Your task to perform on an android device: open app "PlayWell" (install if not already installed) Image 0: 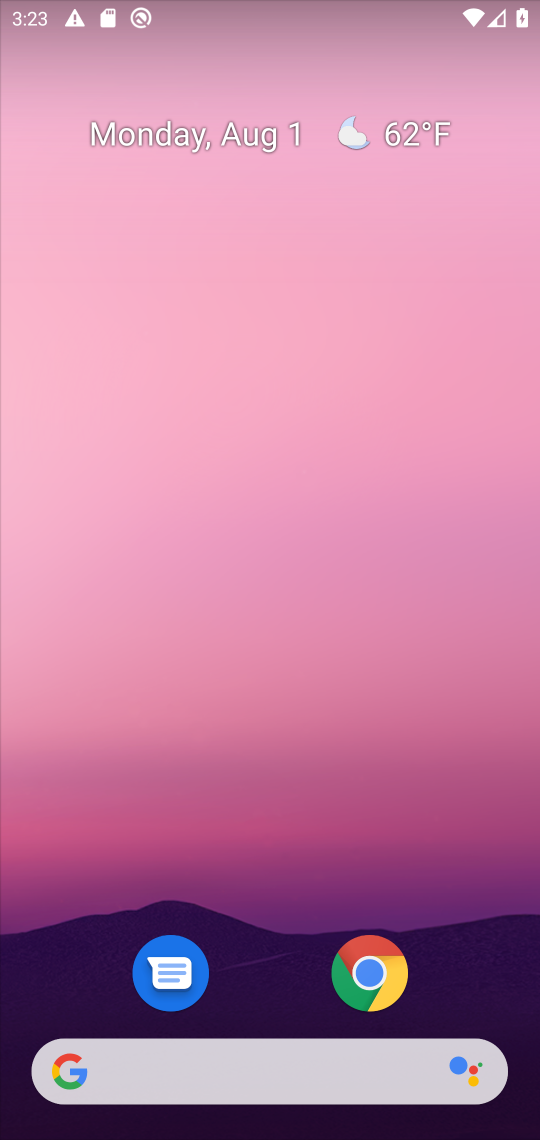
Step 0: drag from (160, 201) to (240, 363)
Your task to perform on an android device: open app "PlayWell" (install if not already installed) Image 1: 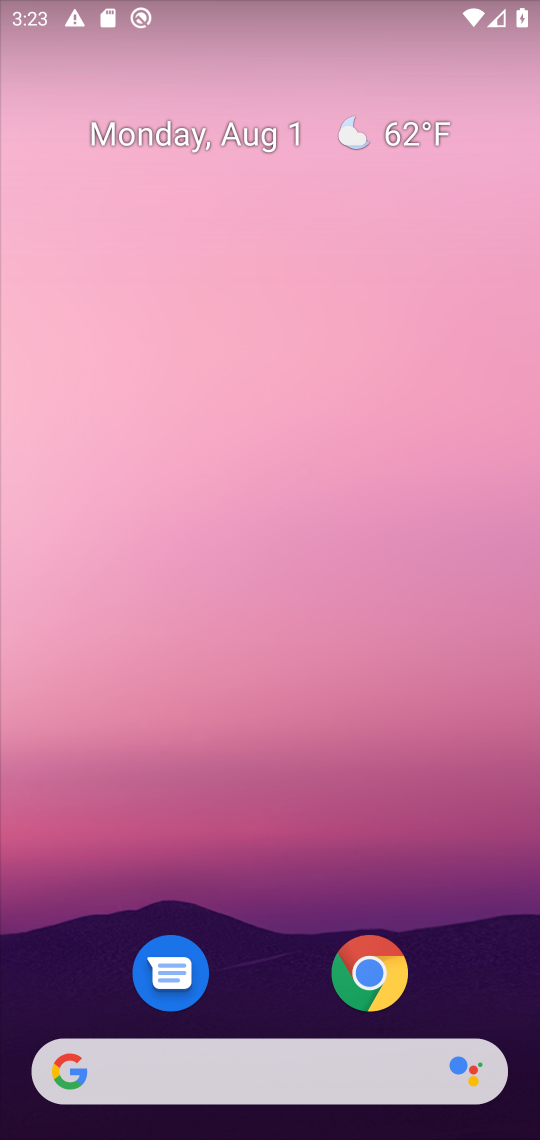
Step 1: click (233, 7)
Your task to perform on an android device: open app "PlayWell" (install if not already installed) Image 2: 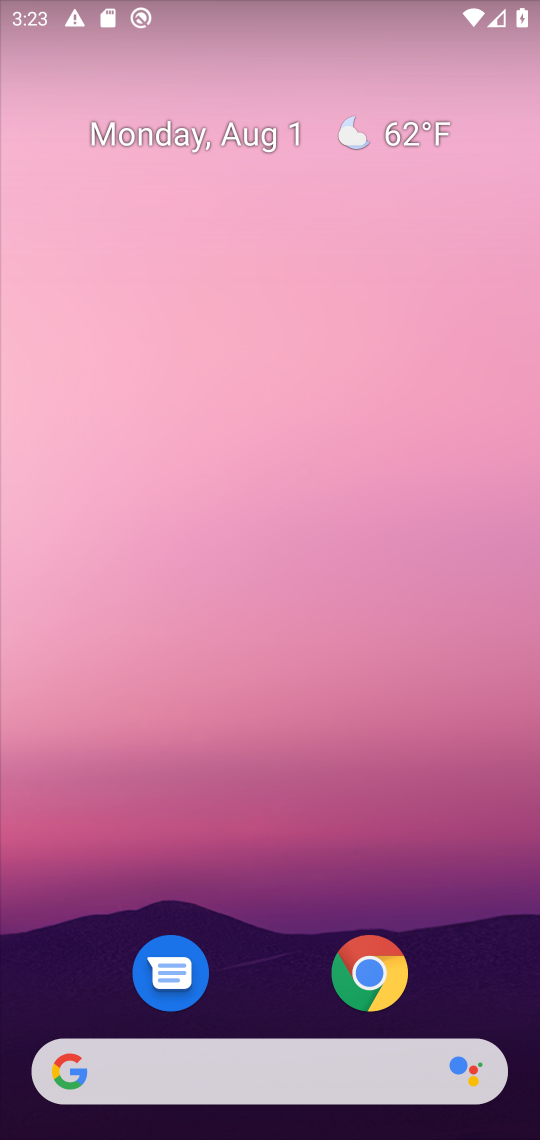
Step 2: drag from (232, 649) to (182, 76)
Your task to perform on an android device: open app "PlayWell" (install if not already installed) Image 3: 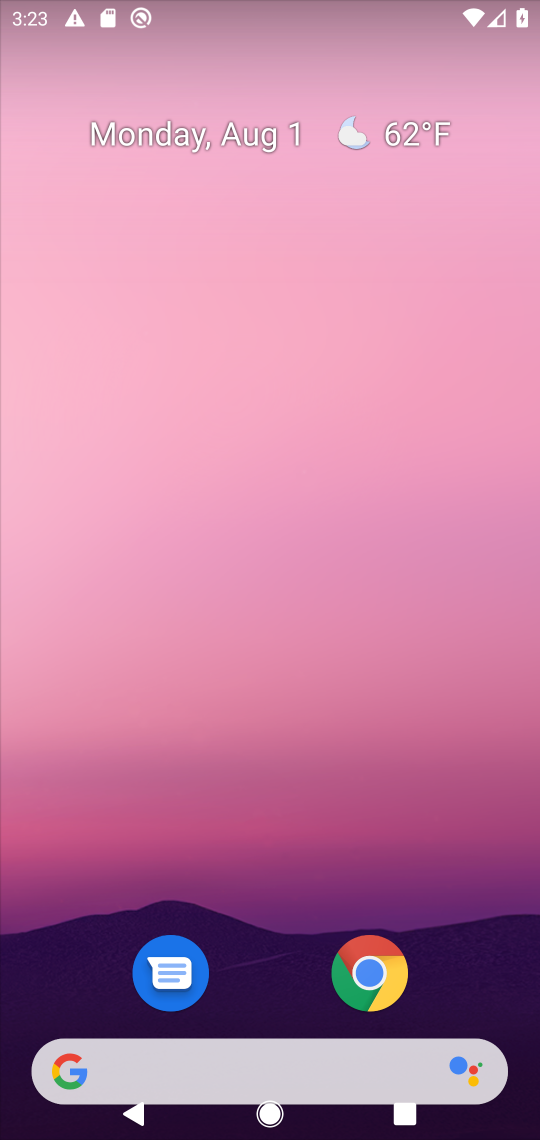
Step 3: drag from (209, 747) to (227, 116)
Your task to perform on an android device: open app "PlayWell" (install if not already installed) Image 4: 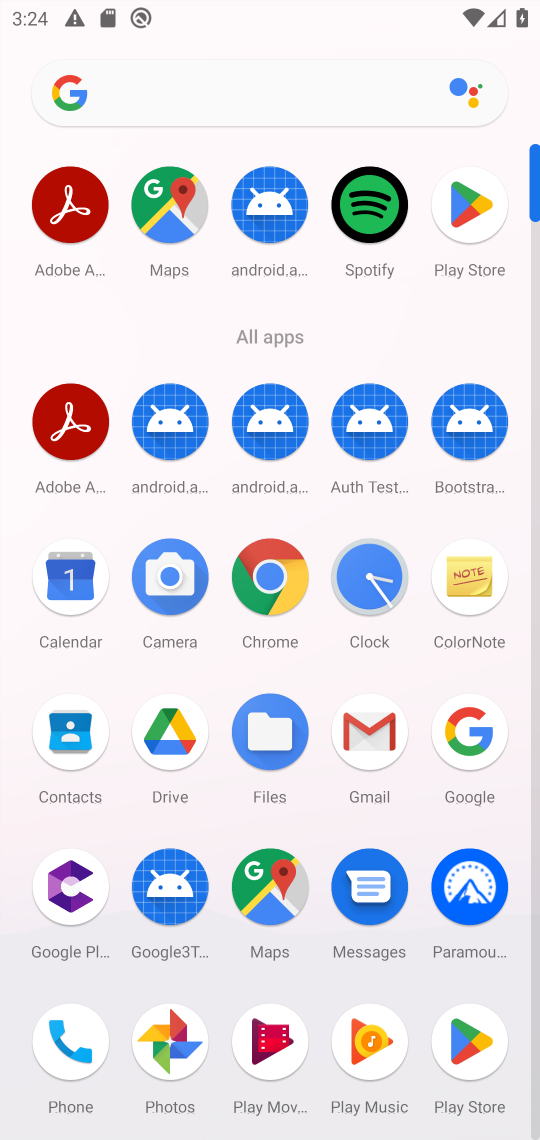
Step 4: click (459, 205)
Your task to perform on an android device: open app "PlayWell" (install if not already installed) Image 5: 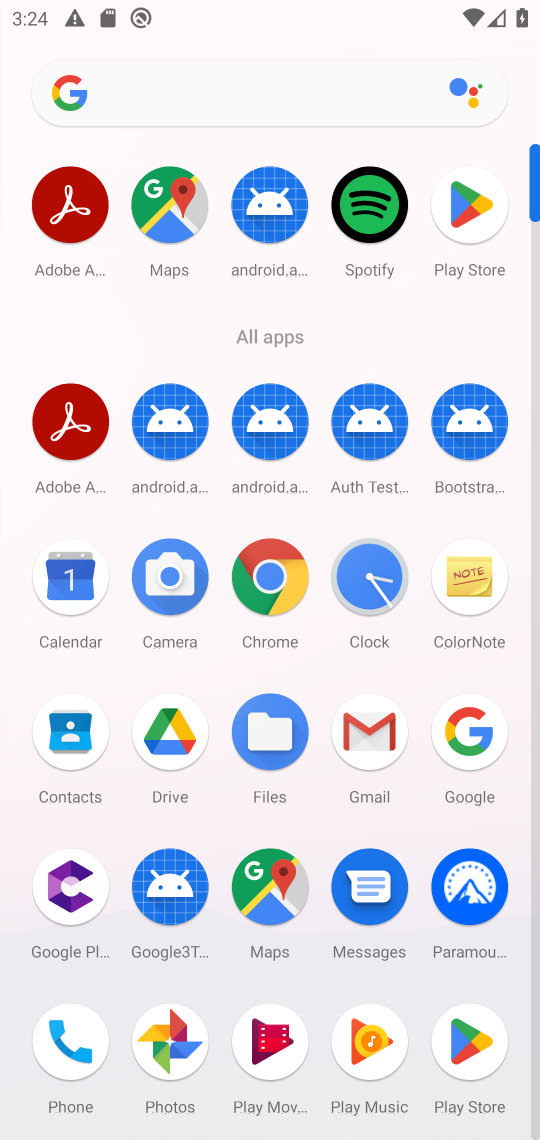
Step 5: click (459, 204)
Your task to perform on an android device: open app "PlayWell" (install if not already installed) Image 6: 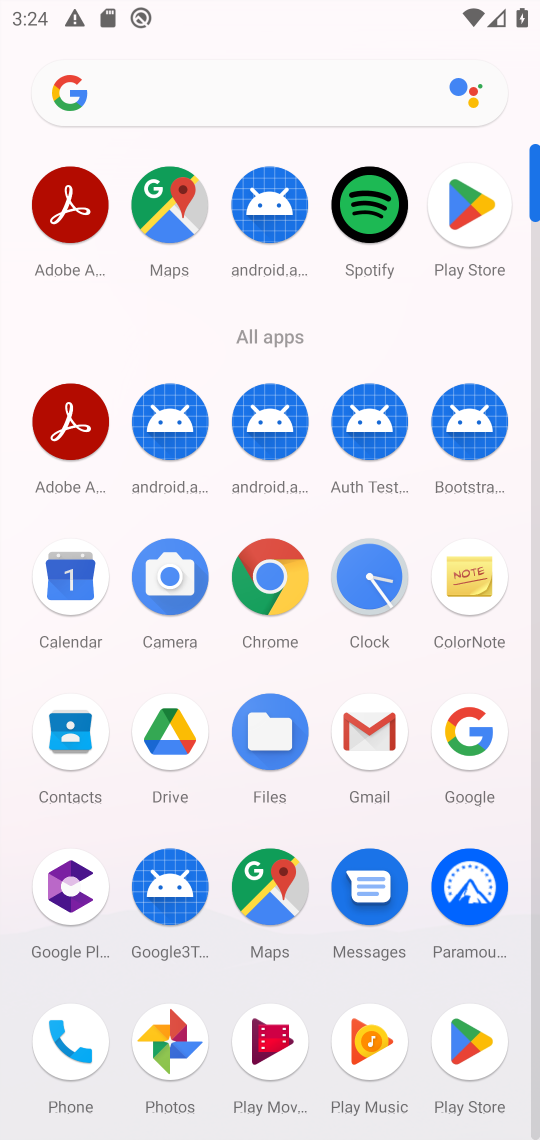
Step 6: click (459, 207)
Your task to perform on an android device: open app "PlayWell" (install if not already installed) Image 7: 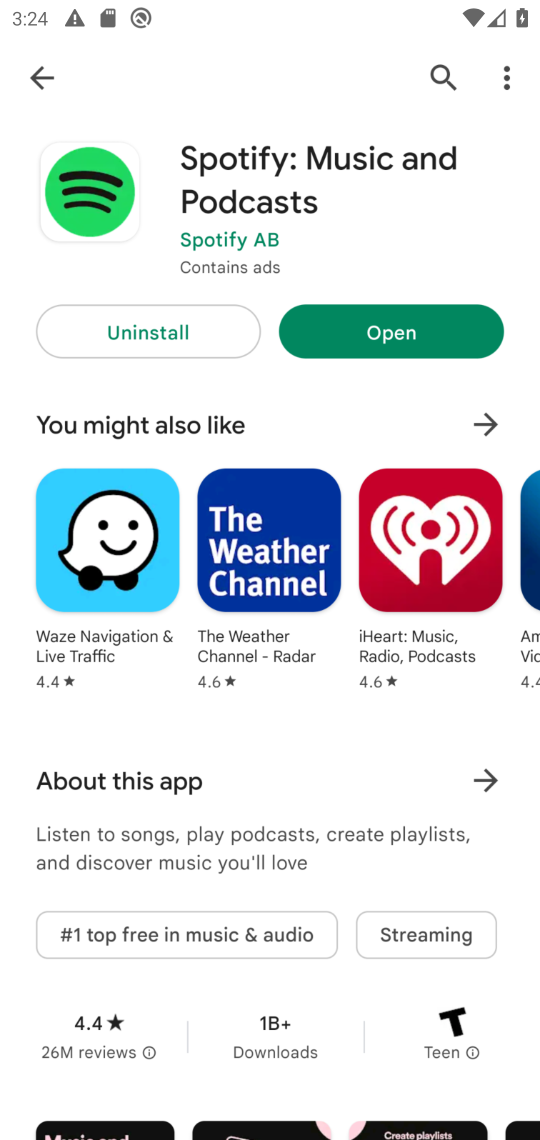
Step 7: click (459, 207)
Your task to perform on an android device: open app "PlayWell" (install if not already installed) Image 8: 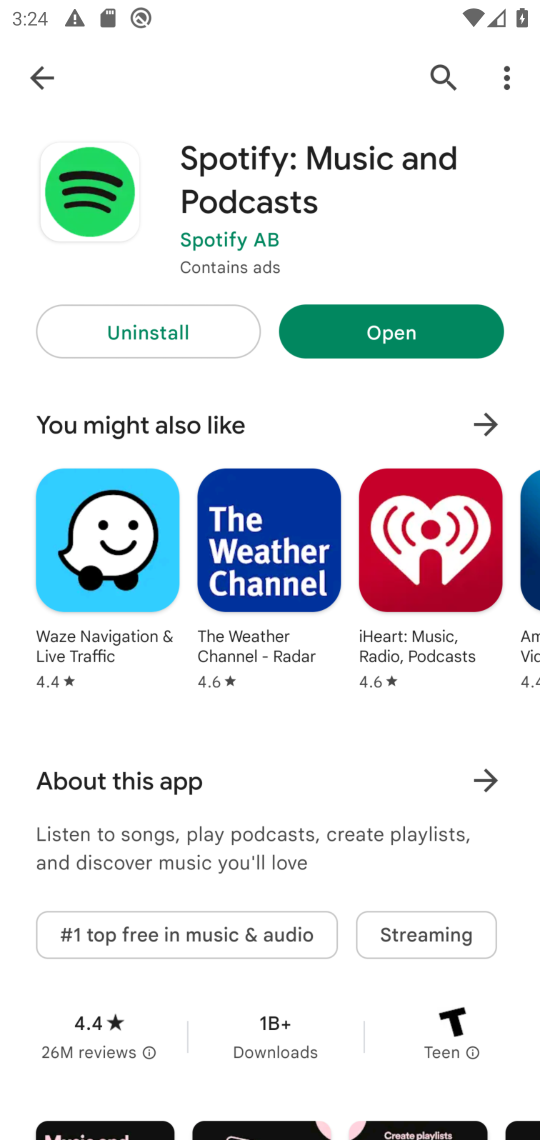
Step 8: click (459, 207)
Your task to perform on an android device: open app "PlayWell" (install if not already installed) Image 9: 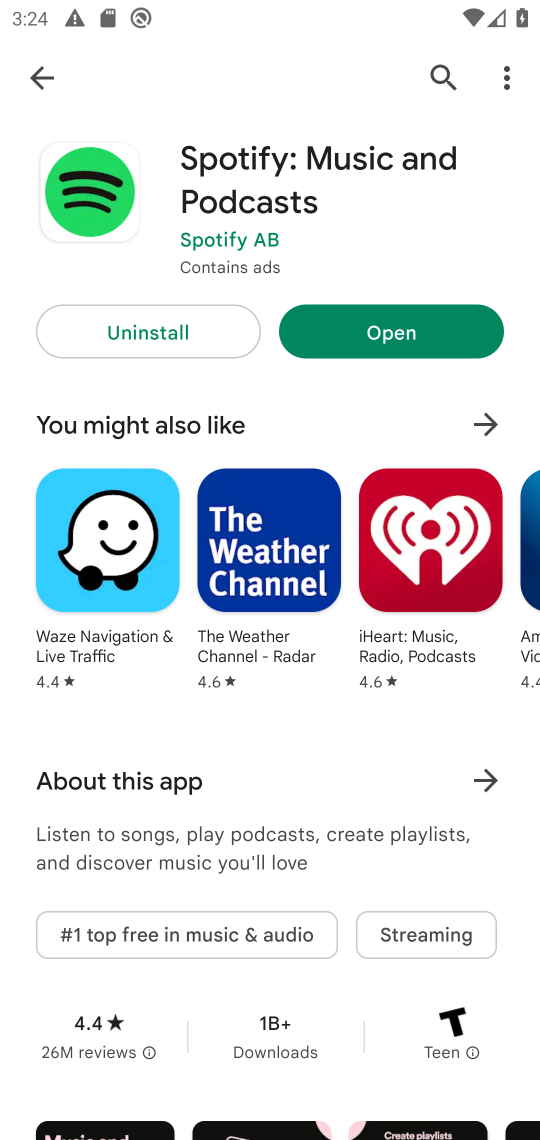
Step 9: click (459, 207)
Your task to perform on an android device: open app "PlayWell" (install if not already installed) Image 10: 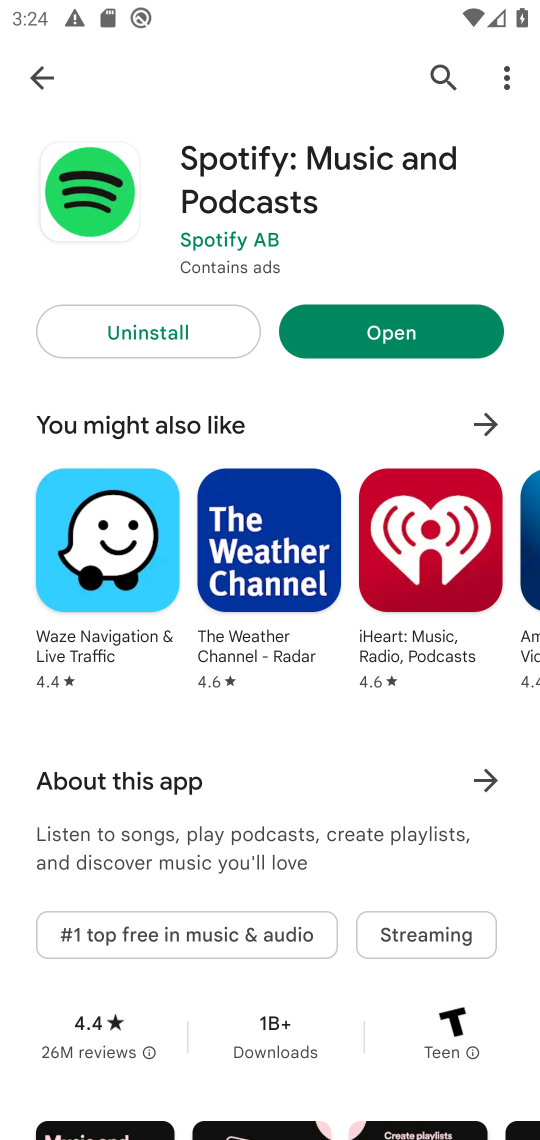
Step 10: click (36, 58)
Your task to perform on an android device: open app "PlayWell" (install if not already installed) Image 11: 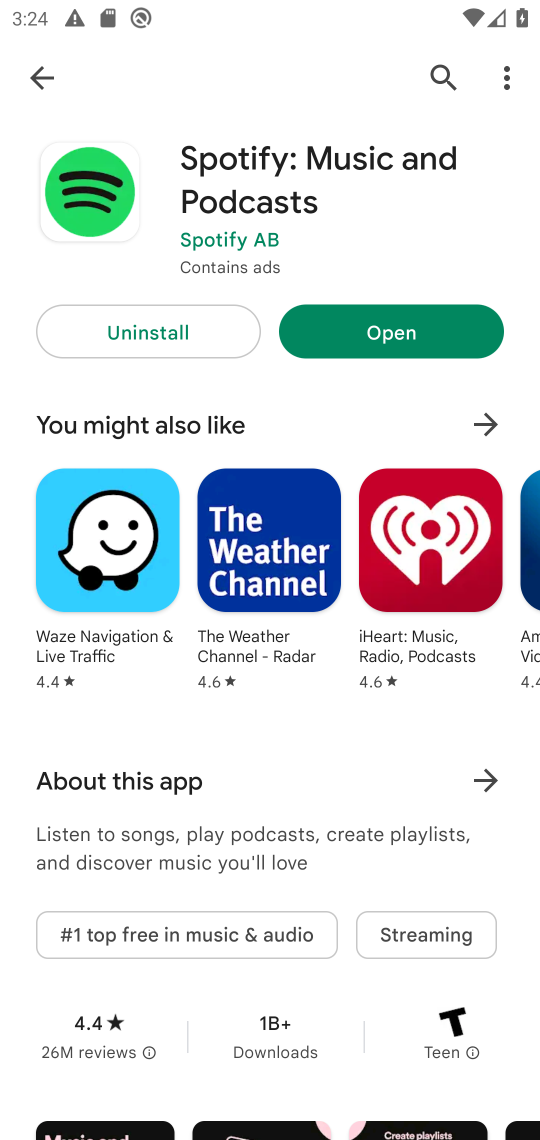
Step 11: click (36, 60)
Your task to perform on an android device: open app "PlayWell" (install if not already installed) Image 12: 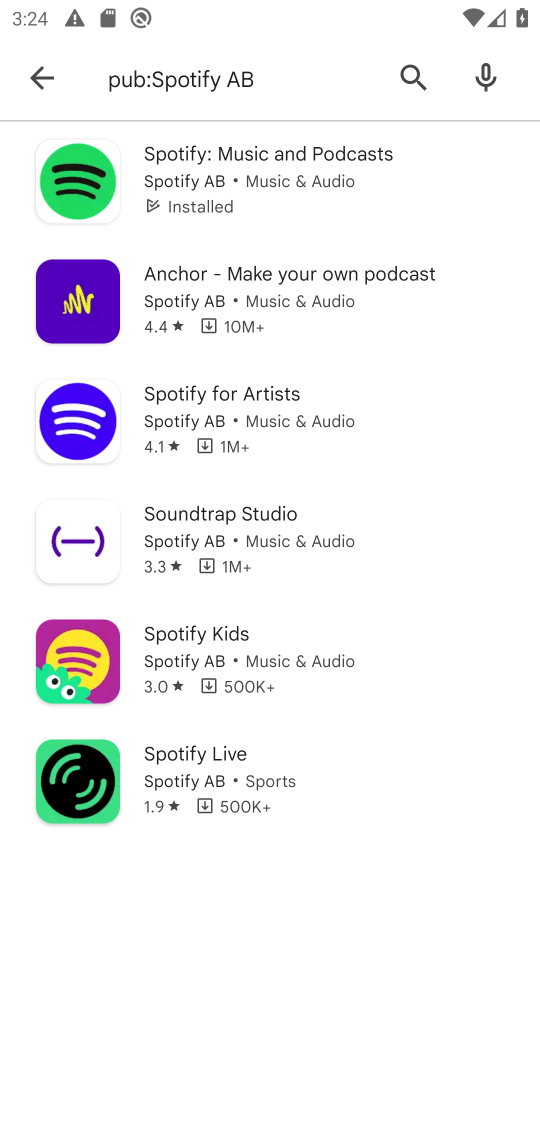
Step 12: click (38, 63)
Your task to perform on an android device: open app "PlayWell" (install if not already installed) Image 13: 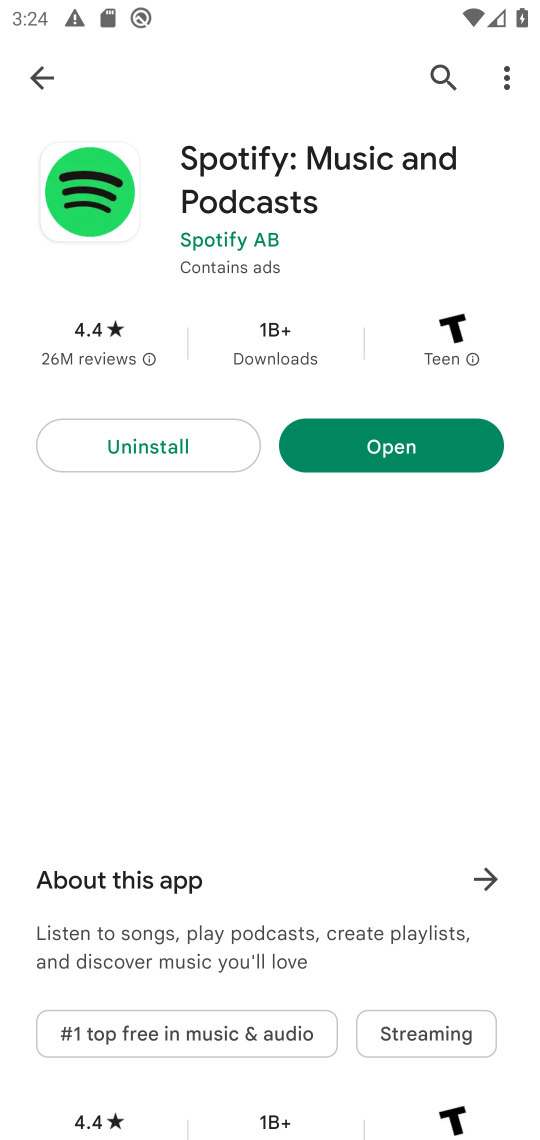
Step 13: click (42, 61)
Your task to perform on an android device: open app "PlayWell" (install if not already installed) Image 14: 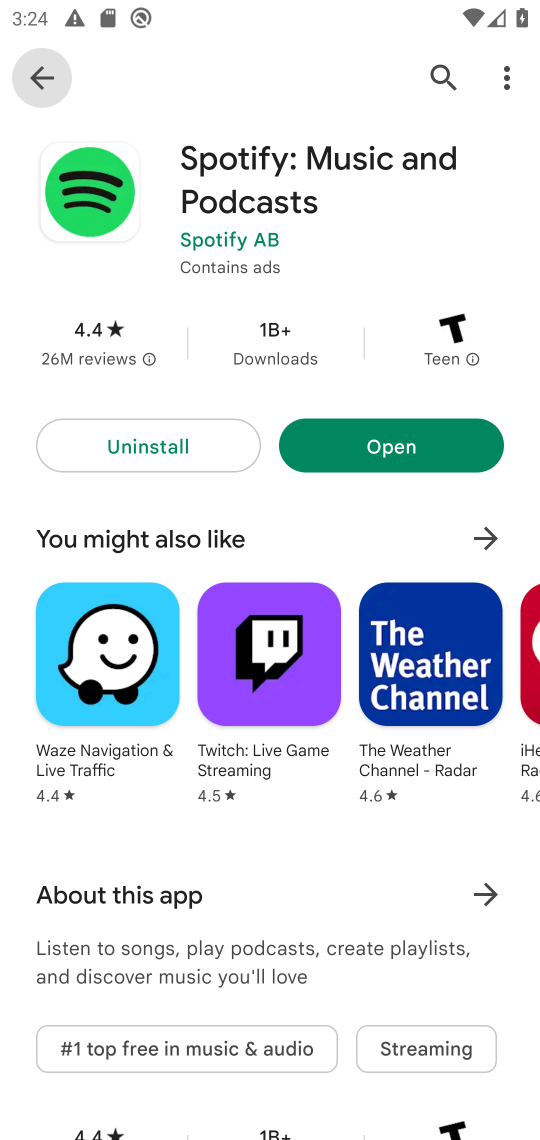
Step 14: click (42, 61)
Your task to perform on an android device: open app "PlayWell" (install if not already installed) Image 15: 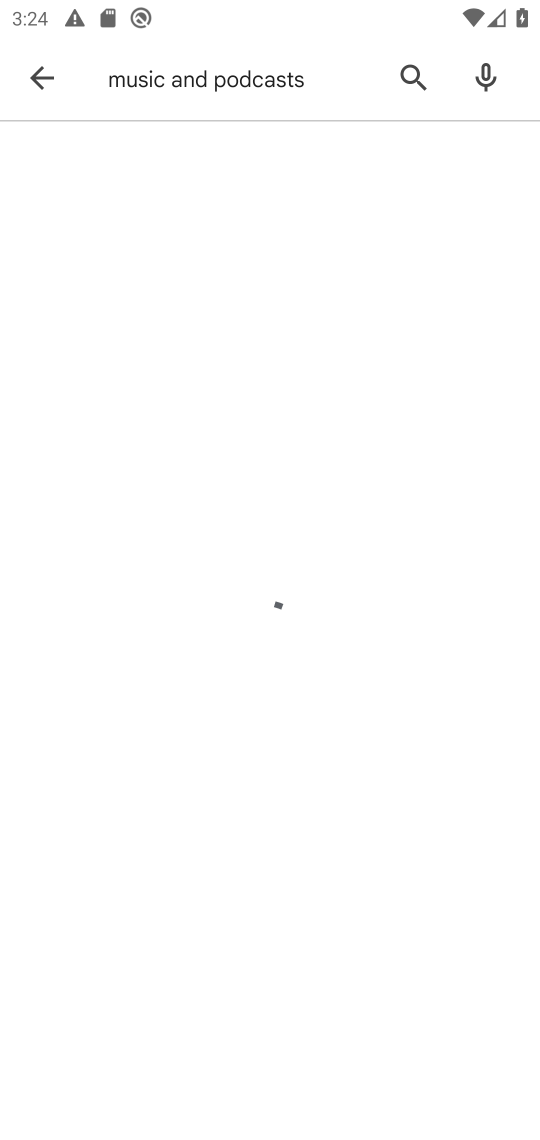
Step 15: click (42, 61)
Your task to perform on an android device: open app "PlayWell" (install if not already installed) Image 16: 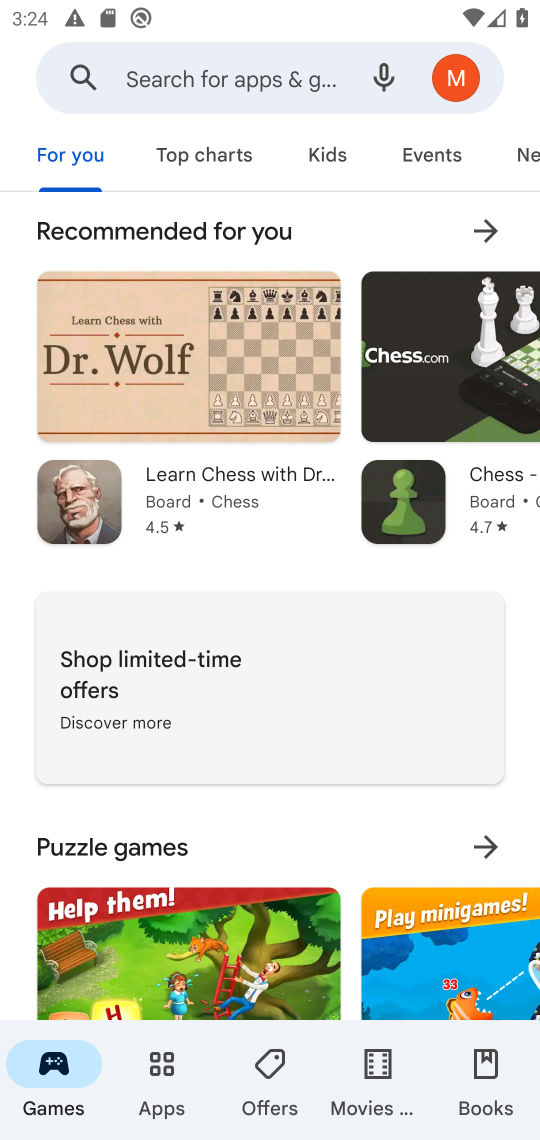
Step 16: click (149, 75)
Your task to perform on an android device: open app "PlayWell" (install if not already installed) Image 17: 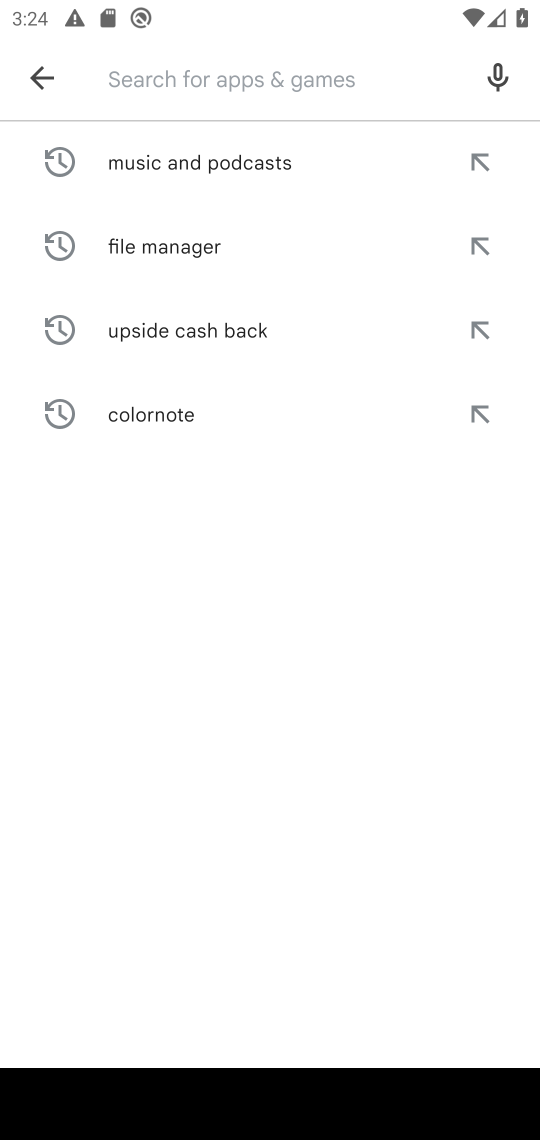
Step 17: type "PlayWell"
Your task to perform on an android device: open app "PlayWell" (install if not already installed) Image 18: 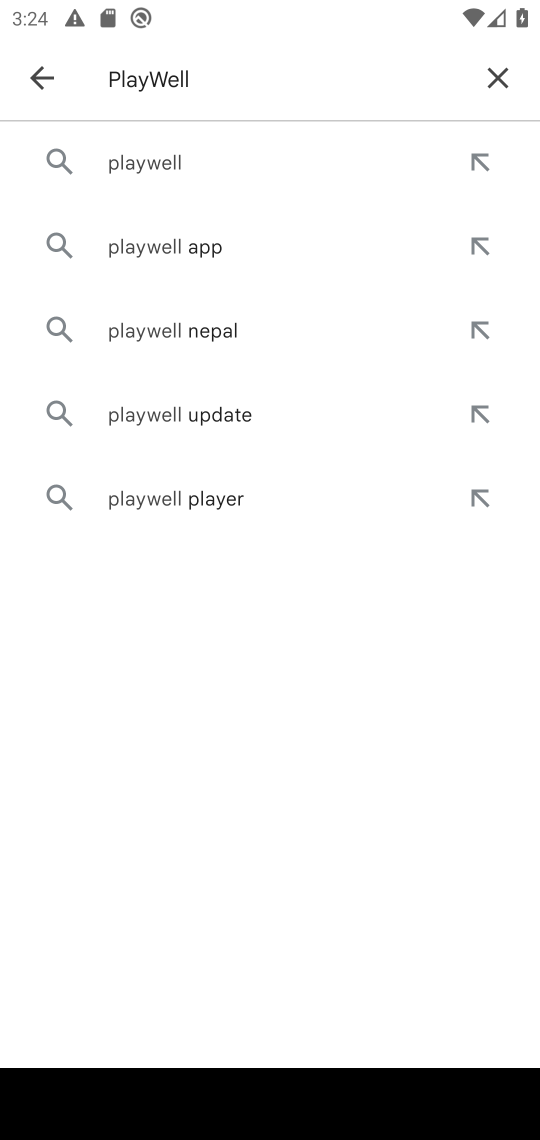
Step 18: click (144, 170)
Your task to perform on an android device: open app "PlayWell" (install if not already installed) Image 19: 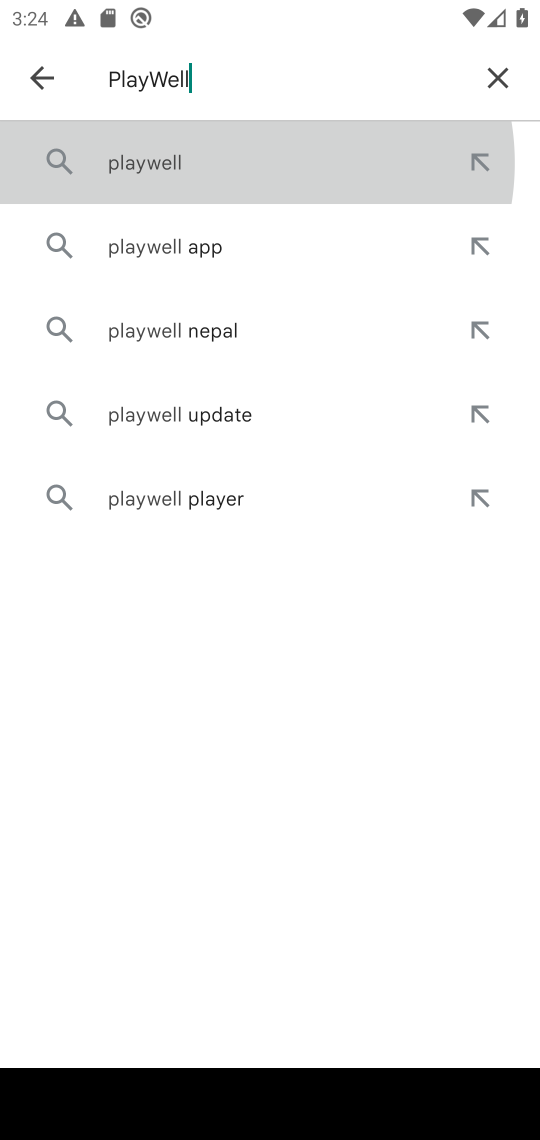
Step 19: click (138, 201)
Your task to perform on an android device: open app "PlayWell" (install if not already installed) Image 20: 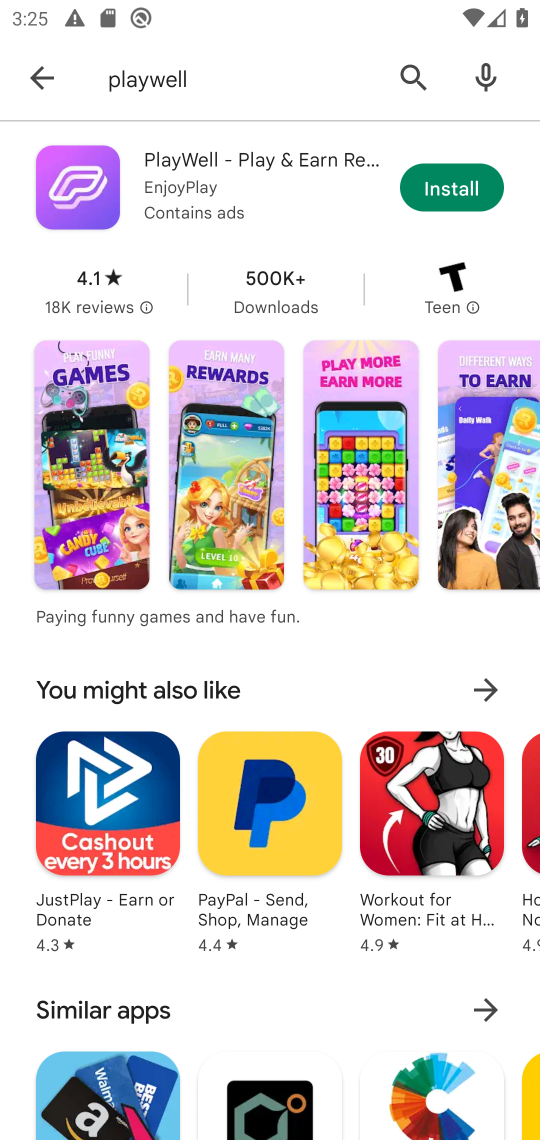
Step 20: click (444, 192)
Your task to perform on an android device: open app "PlayWell" (install if not already installed) Image 21: 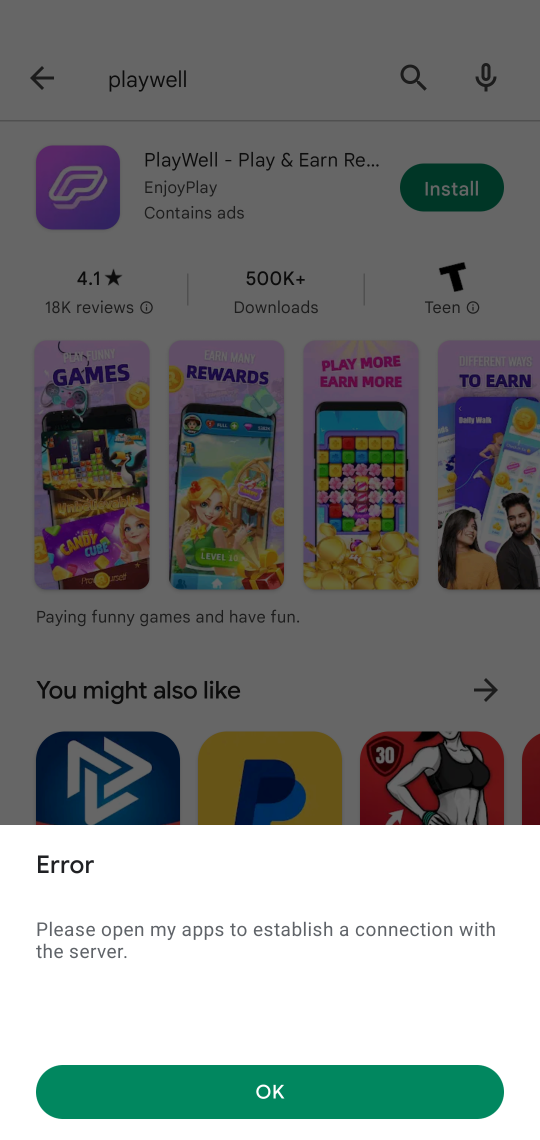
Step 21: click (315, 1104)
Your task to perform on an android device: open app "PlayWell" (install if not already installed) Image 22: 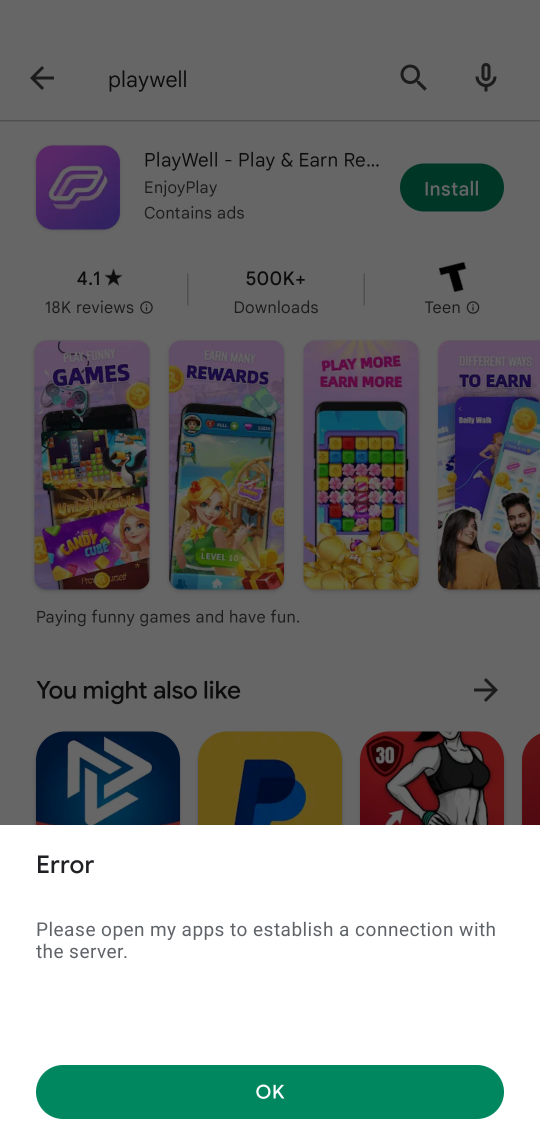
Step 22: click (315, 1101)
Your task to perform on an android device: open app "PlayWell" (install if not already installed) Image 23: 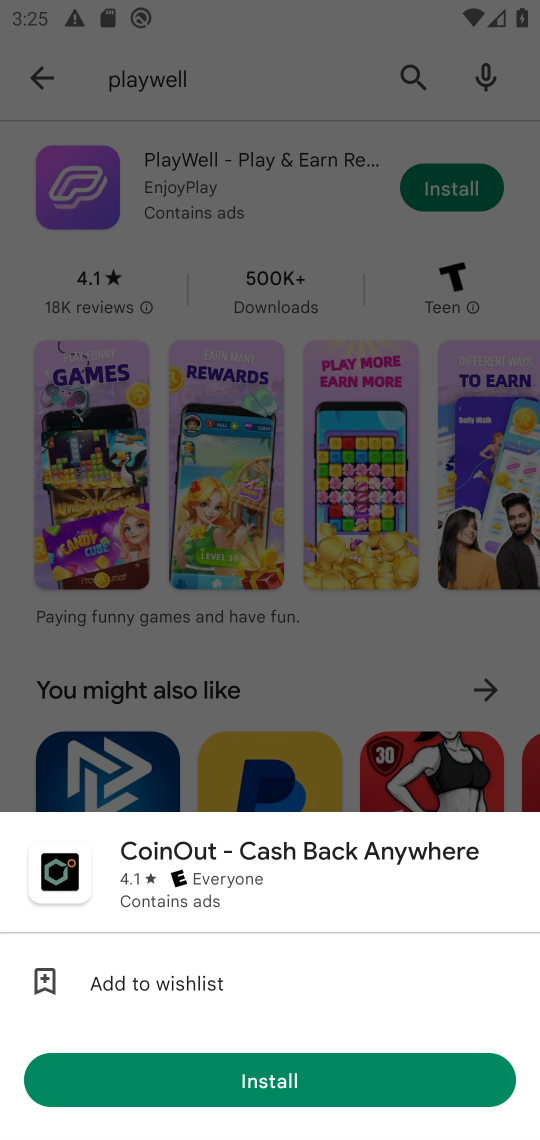
Step 23: click (278, 1087)
Your task to perform on an android device: open app "PlayWell" (install if not already installed) Image 24: 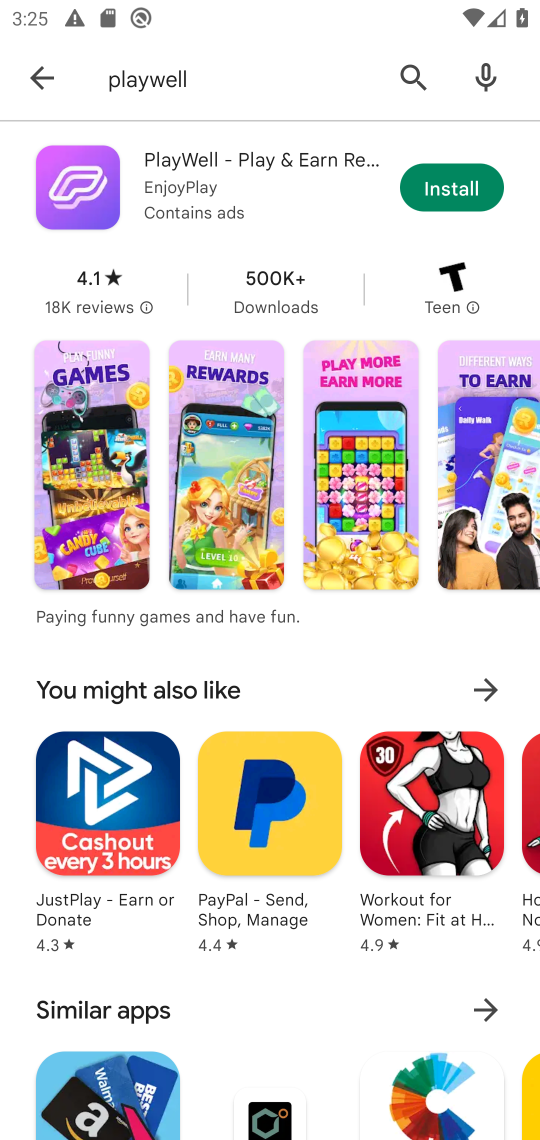
Step 24: click (444, 183)
Your task to perform on an android device: open app "PlayWell" (install if not already installed) Image 25: 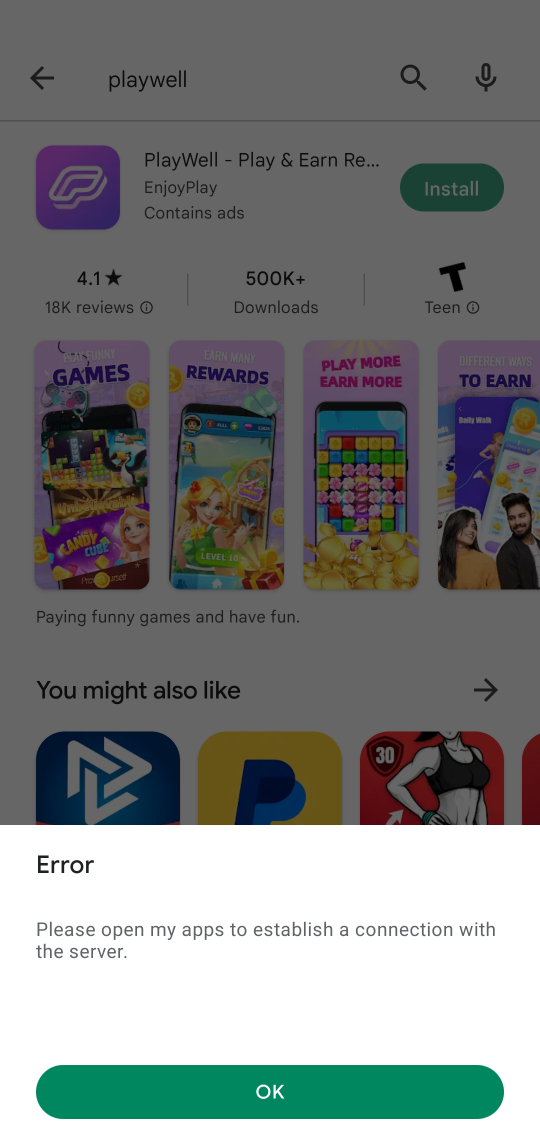
Step 25: click (444, 188)
Your task to perform on an android device: open app "PlayWell" (install if not already installed) Image 26: 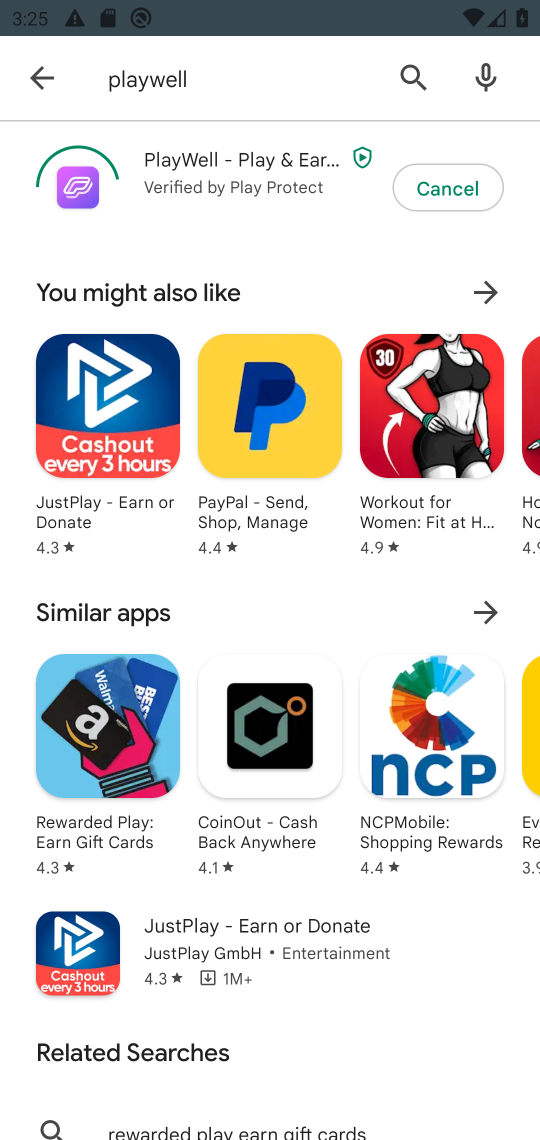
Step 26: click (256, 1078)
Your task to perform on an android device: open app "PlayWell" (install if not already installed) Image 27: 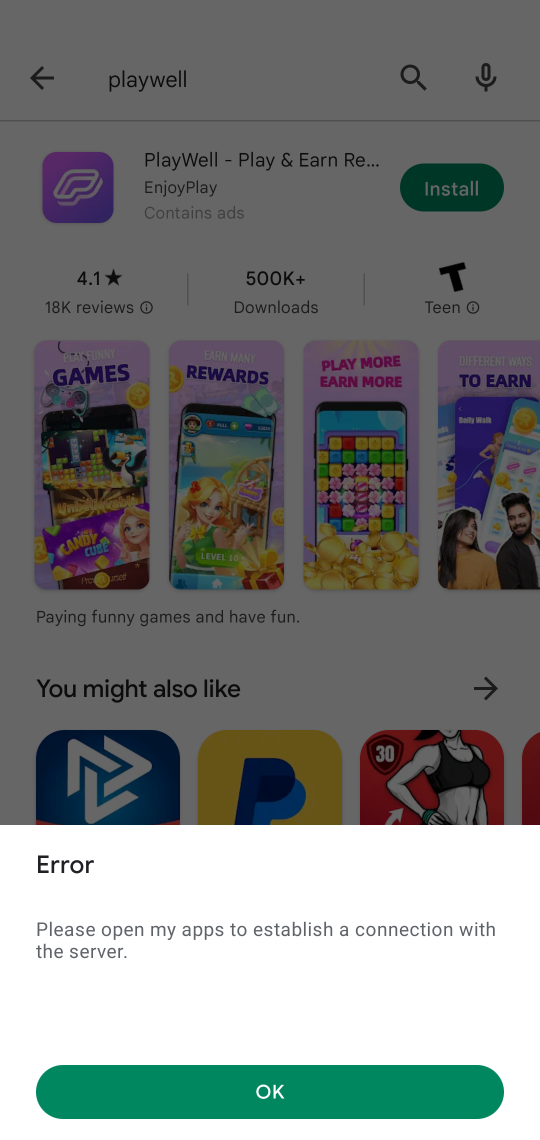
Step 27: click (274, 1075)
Your task to perform on an android device: open app "PlayWell" (install if not already installed) Image 28: 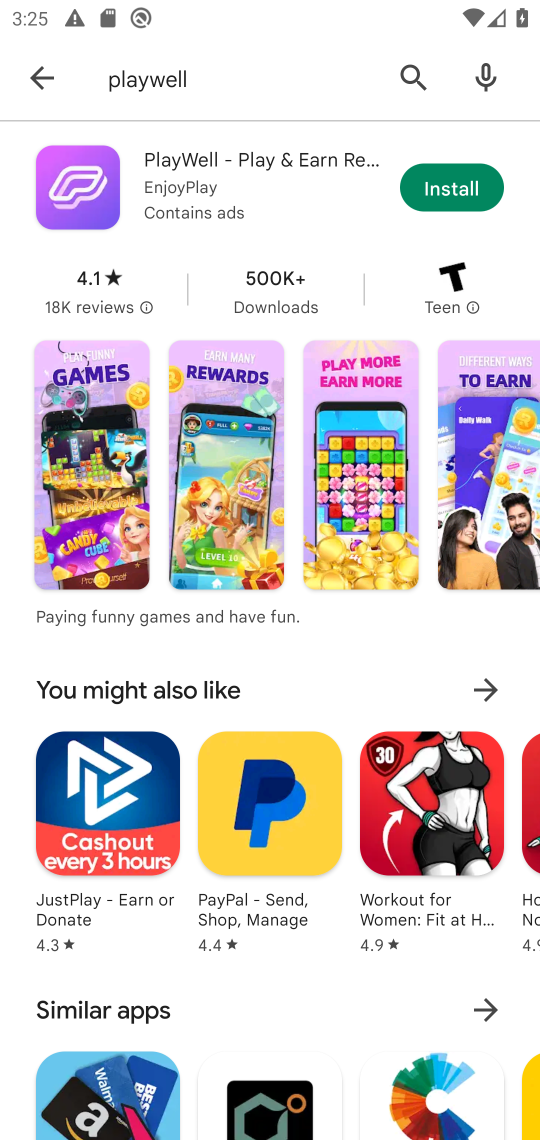
Step 28: click (436, 187)
Your task to perform on an android device: open app "PlayWell" (install if not already installed) Image 29: 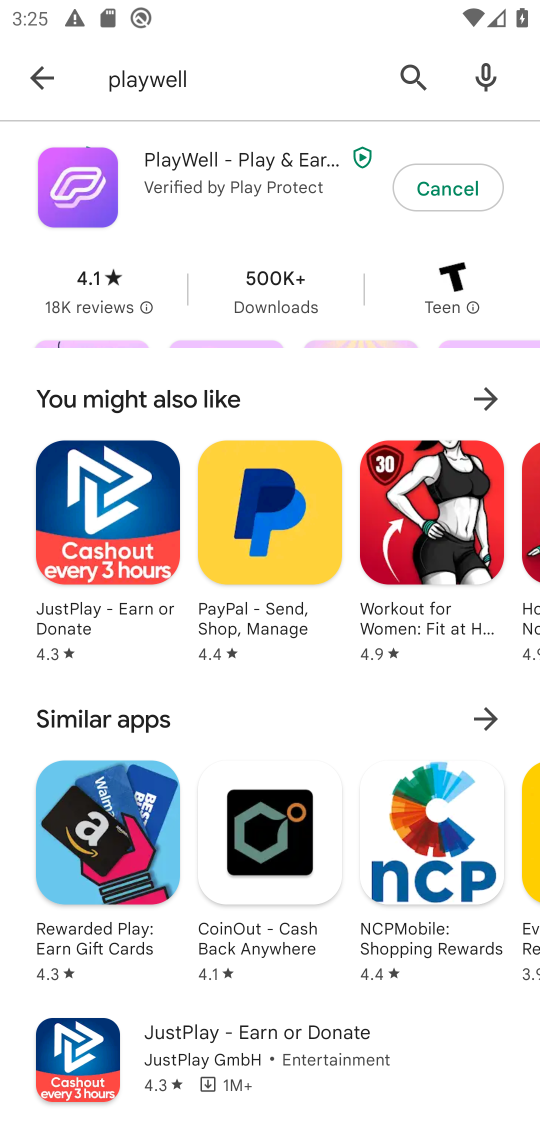
Step 29: click (425, 192)
Your task to perform on an android device: open app "PlayWell" (install if not already installed) Image 30: 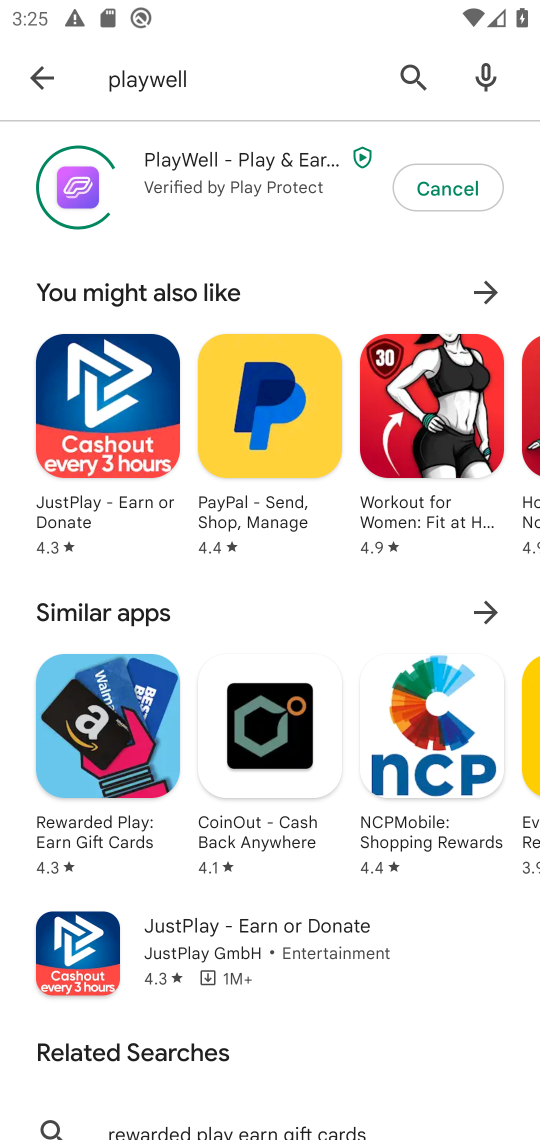
Step 30: click (421, 202)
Your task to perform on an android device: open app "PlayWell" (install if not already installed) Image 31: 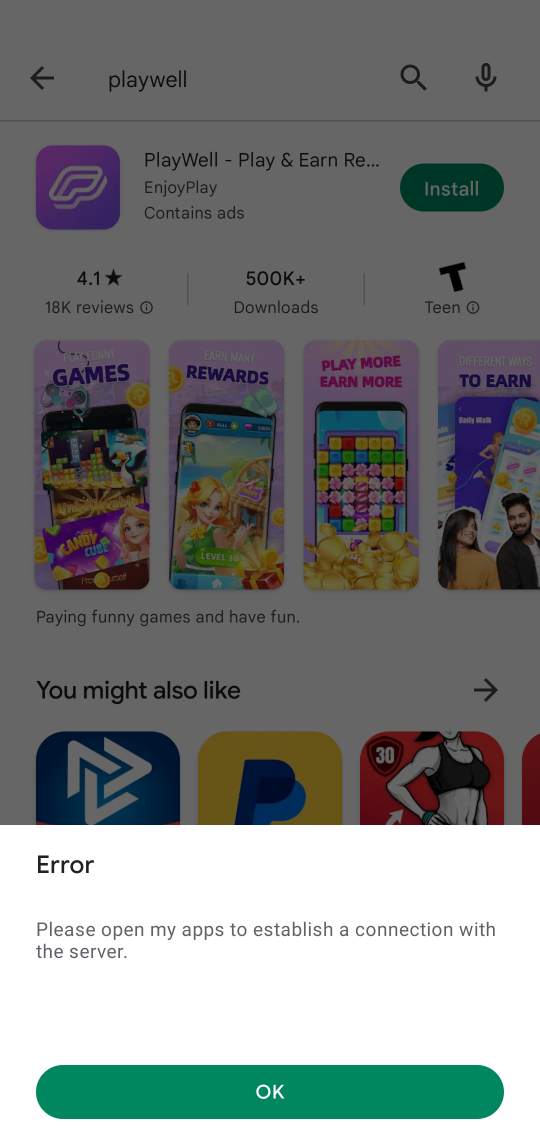
Step 31: click (299, 1108)
Your task to perform on an android device: open app "PlayWell" (install if not already installed) Image 32: 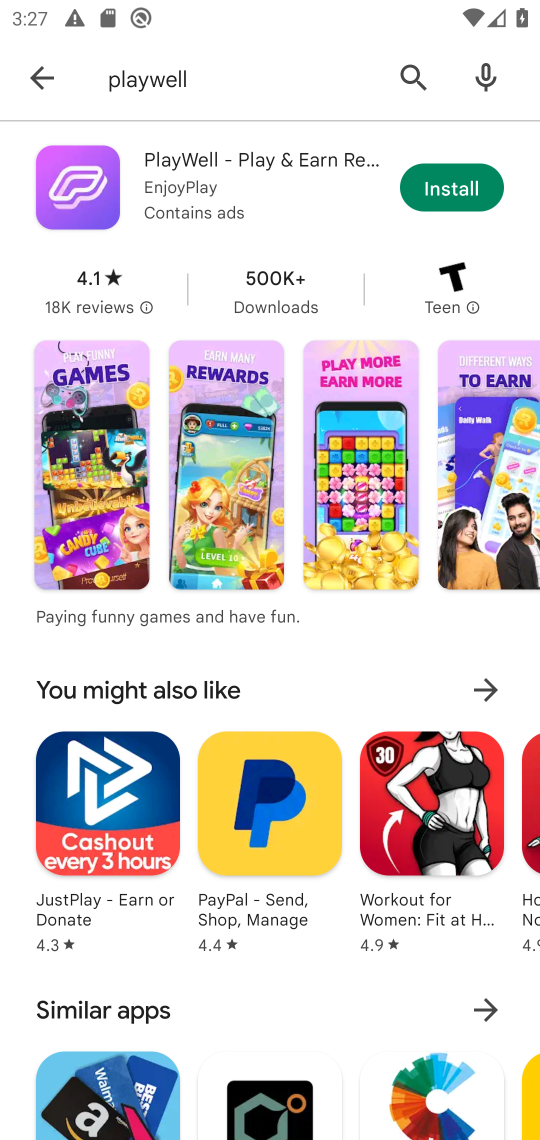
Step 32: click (438, 196)
Your task to perform on an android device: open app "PlayWell" (install if not already installed) Image 33: 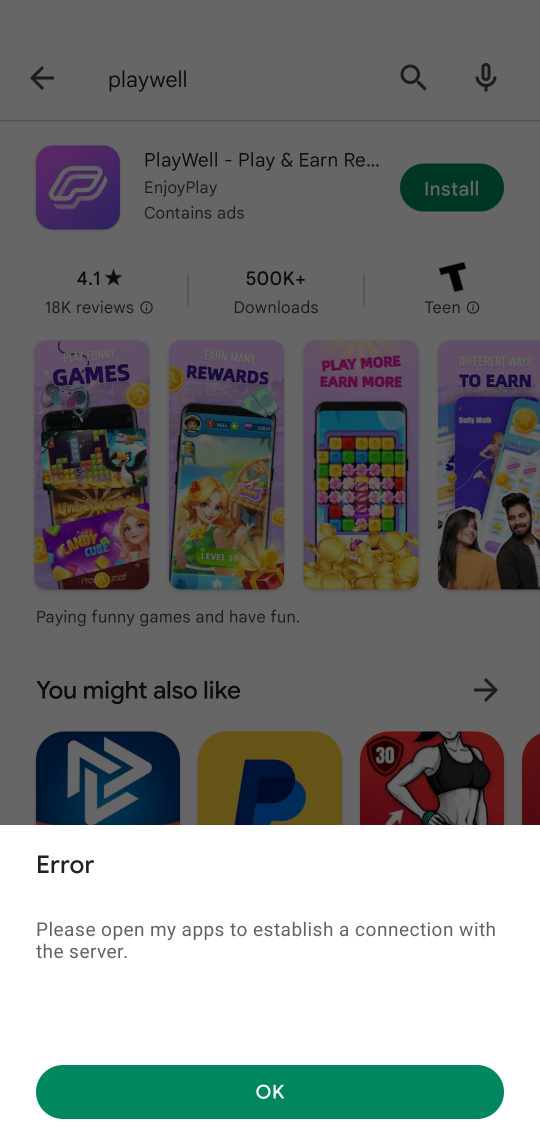
Step 33: click (303, 1097)
Your task to perform on an android device: open app "PlayWell" (install if not already installed) Image 34: 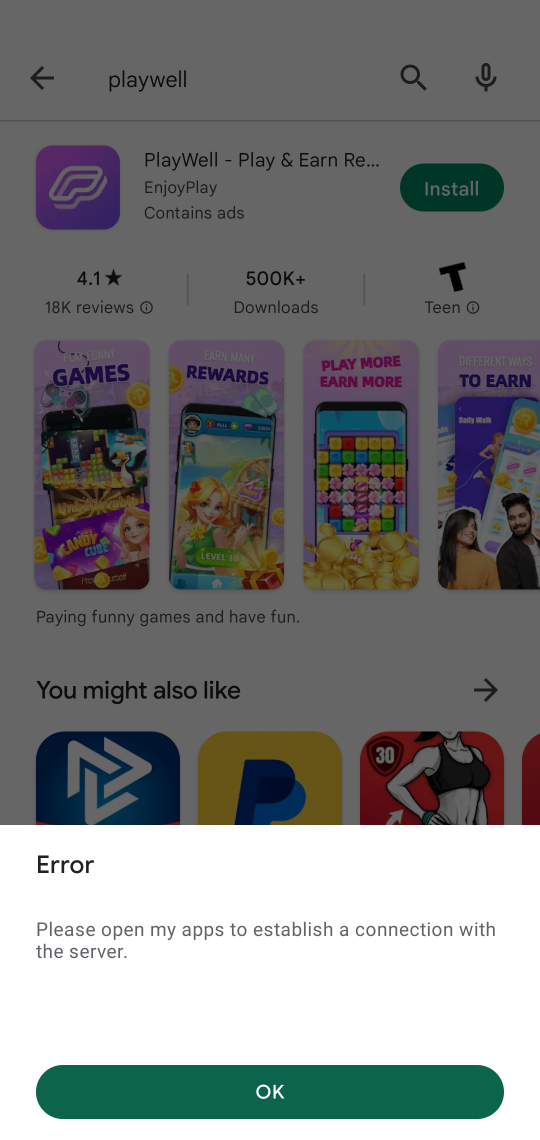
Step 34: click (309, 1107)
Your task to perform on an android device: open app "PlayWell" (install if not already installed) Image 35: 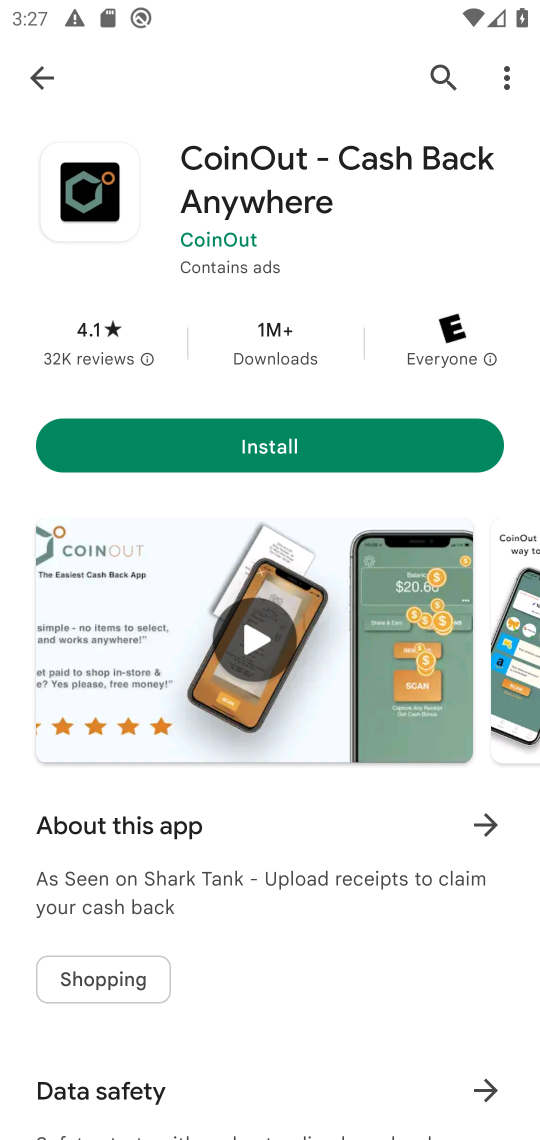
Step 35: click (21, 81)
Your task to perform on an android device: open app "PlayWell" (install if not already installed) Image 36: 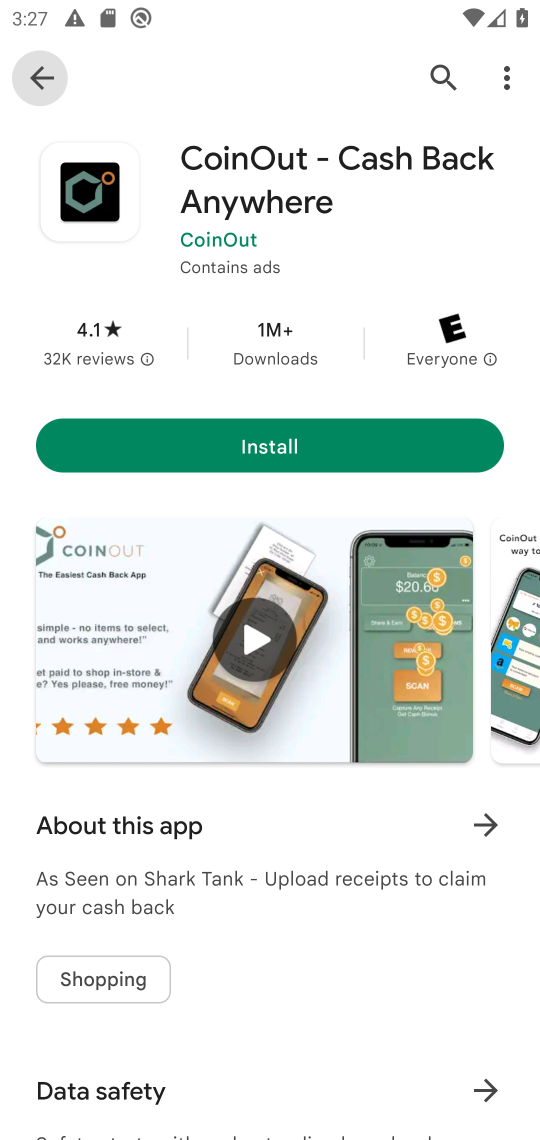
Step 36: click (35, 78)
Your task to perform on an android device: open app "PlayWell" (install if not already installed) Image 37: 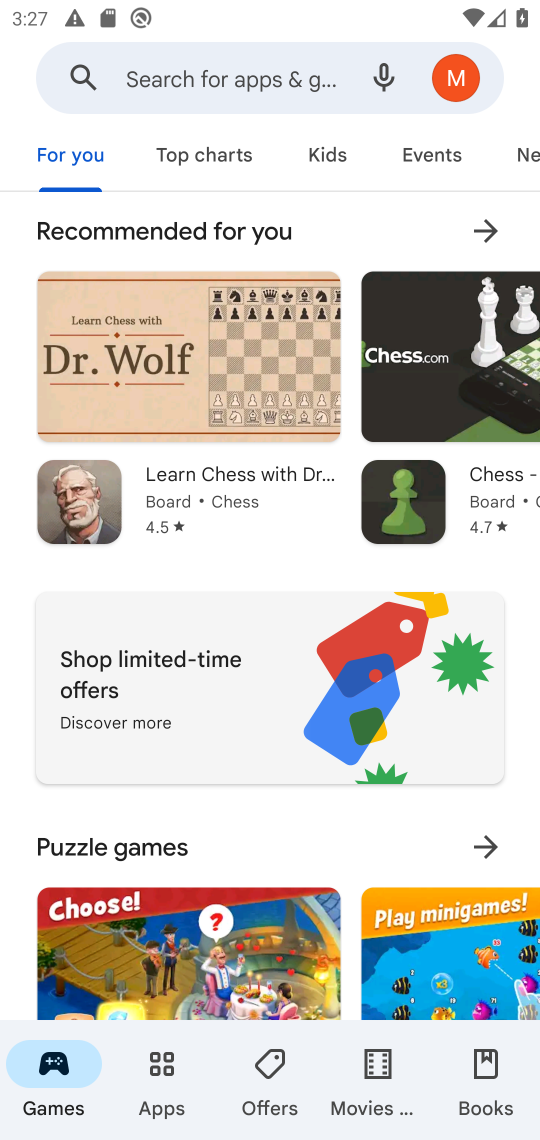
Step 37: click (140, 83)
Your task to perform on an android device: open app "PlayWell" (install if not already installed) Image 38: 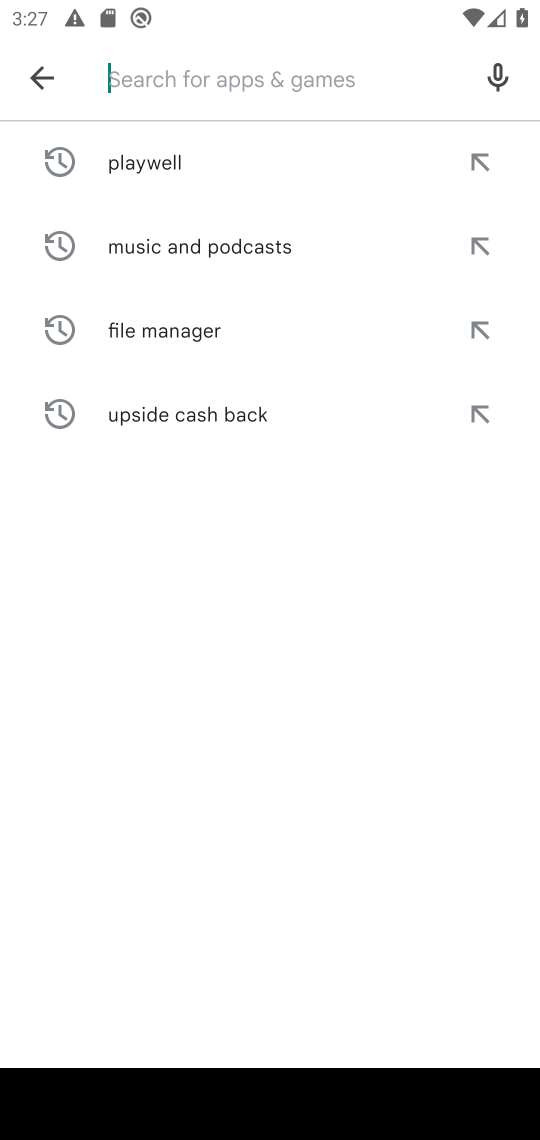
Step 38: task complete